Your task to perform on an android device: Search for vegetarian restaurants on Maps Image 0: 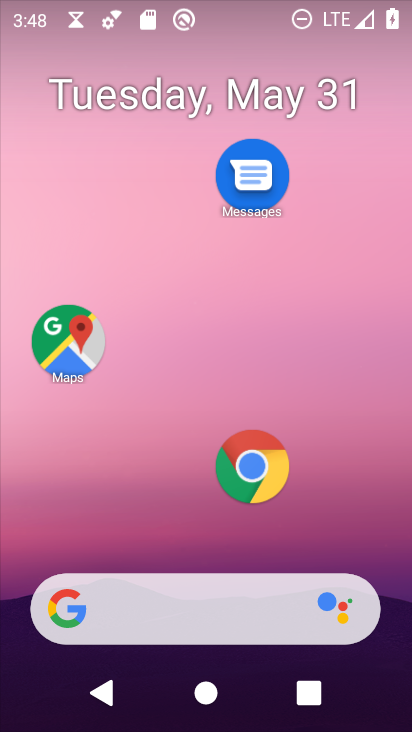
Step 0: click (52, 329)
Your task to perform on an android device: Search for vegetarian restaurants on Maps Image 1: 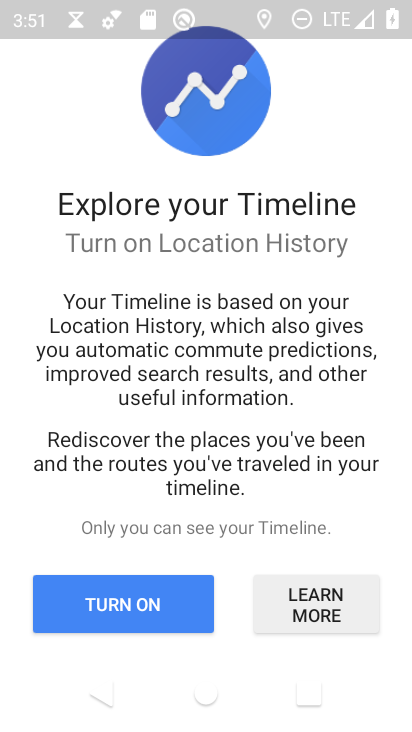
Step 1: click (133, 603)
Your task to perform on an android device: Search for vegetarian restaurants on Maps Image 2: 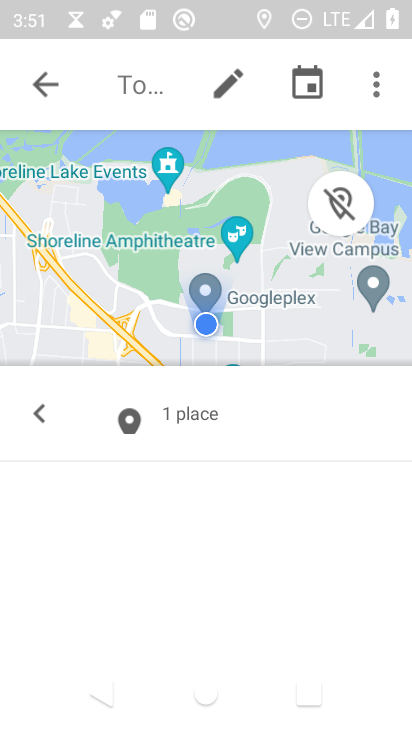
Step 2: click (51, 82)
Your task to perform on an android device: Search for vegetarian restaurants on Maps Image 3: 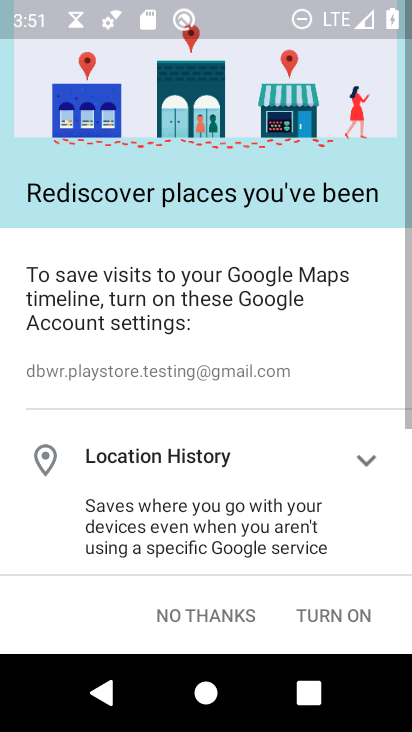
Step 3: click (214, 599)
Your task to perform on an android device: Search for vegetarian restaurants on Maps Image 4: 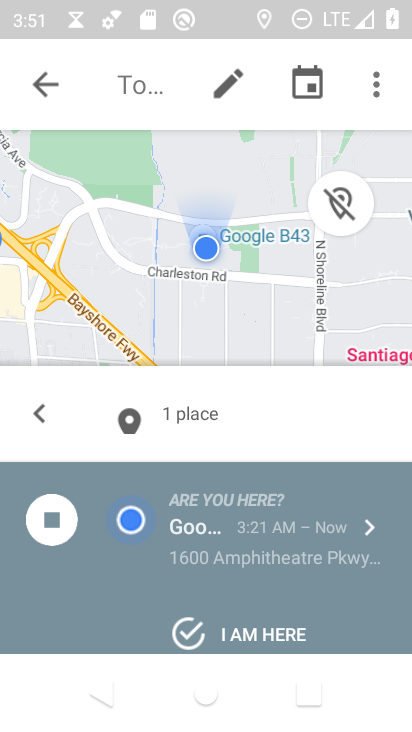
Step 4: click (63, 80)
Your task to perform on an android device: Search for vegetarian restaurants on Maps Image 5: 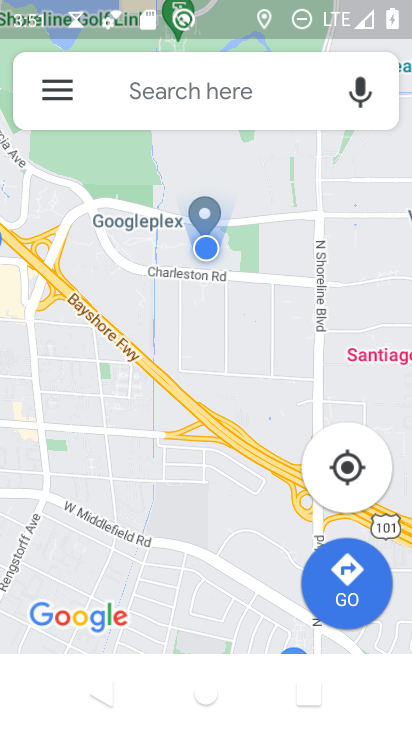
Step 5: click (153, 79)
Your task to perform on an android device: Search for vegetarian restaurants on Maps Image 6: 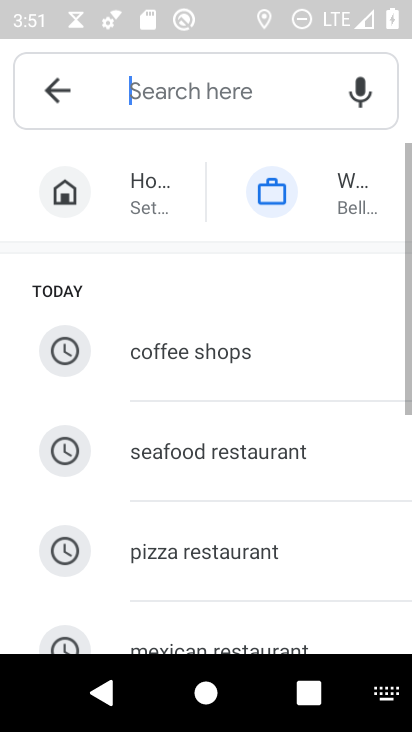
Step 6: drag from (237, 608) to (263, 134)
Your task to perform on an android device: Search for vegetarian restaurants on Maps Image 7: 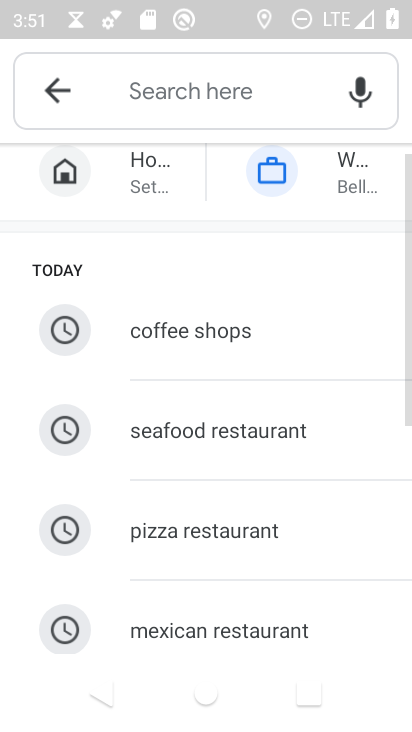
Step 7: drag from (198, 579) to (278, 45)
Your task to perform on an android device: Search for vegetarian restaurants on Maps Image 8: 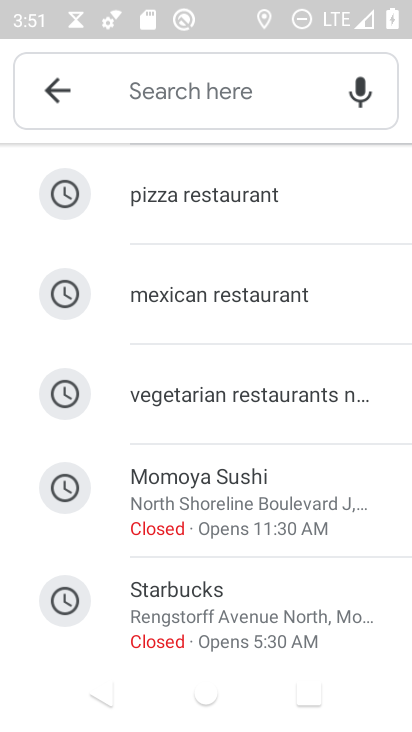
Step 8: click (198, 393)
Your task to perform on an android device: Search for vegetarian restaurants on Maps Image 9: 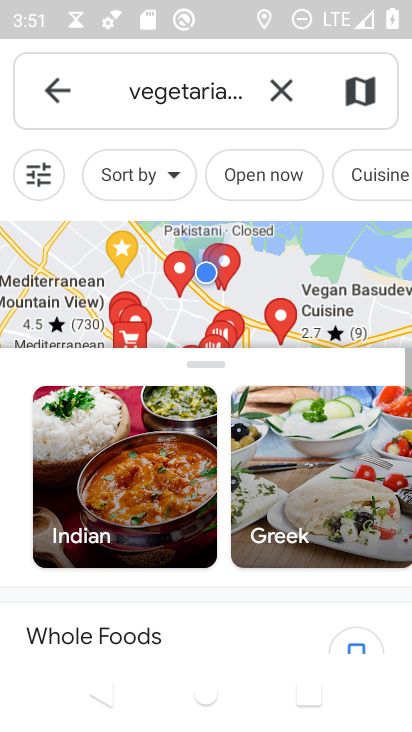
Step 9: task complete